Your task to perform on an android device: Search for Italian restaurants on Maps Image 0: 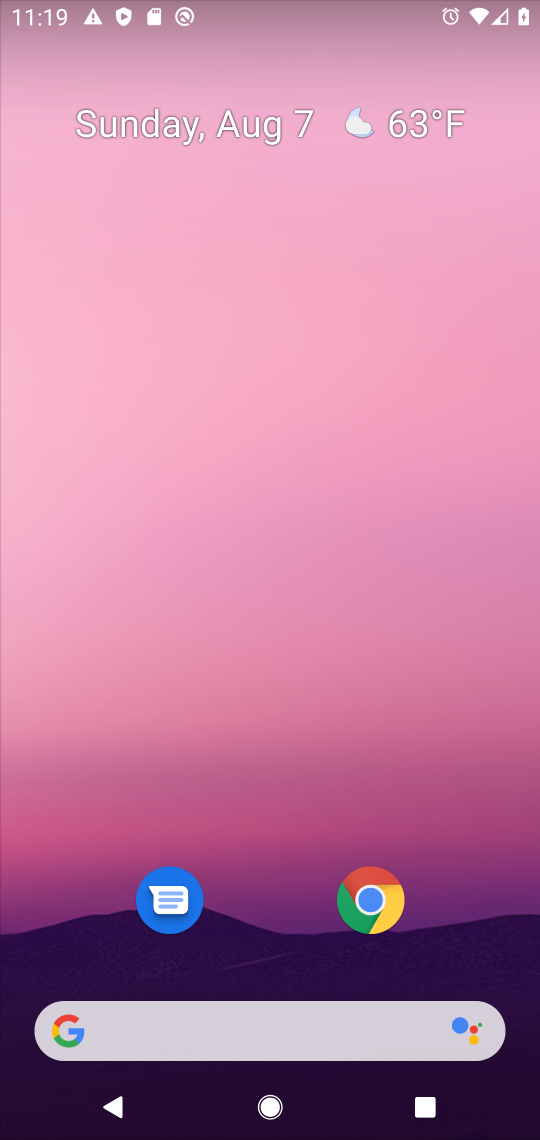
Step 0: press home button
Your task to perform on an android device: Search for Italian restaurants on Maps Image 1: 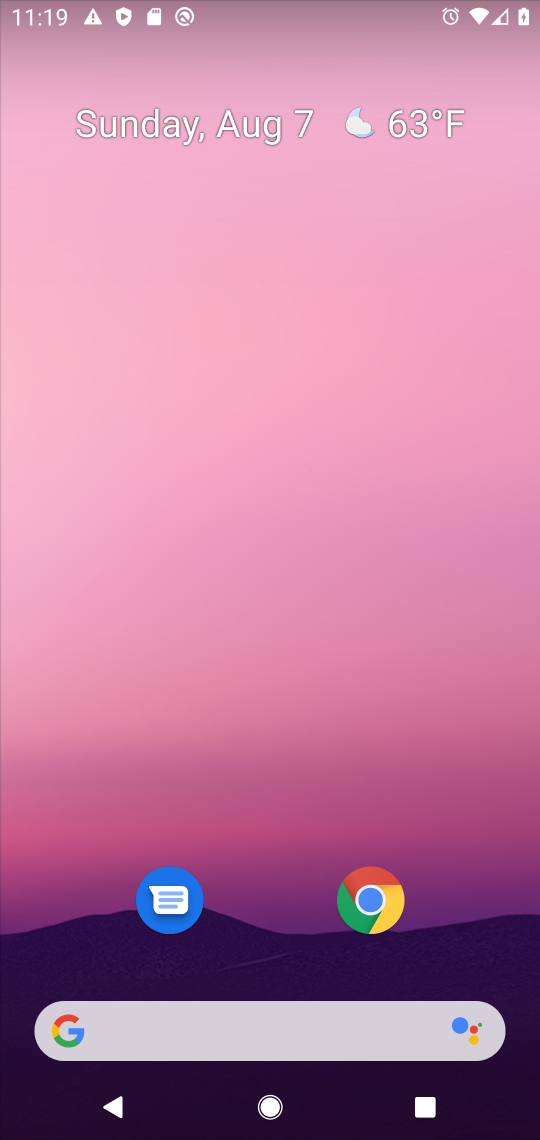
Step 1: drag from (276, 965) to (310, 123)
Your task to perform on an android device: Search for Italian restaurants on Maps Image 2: 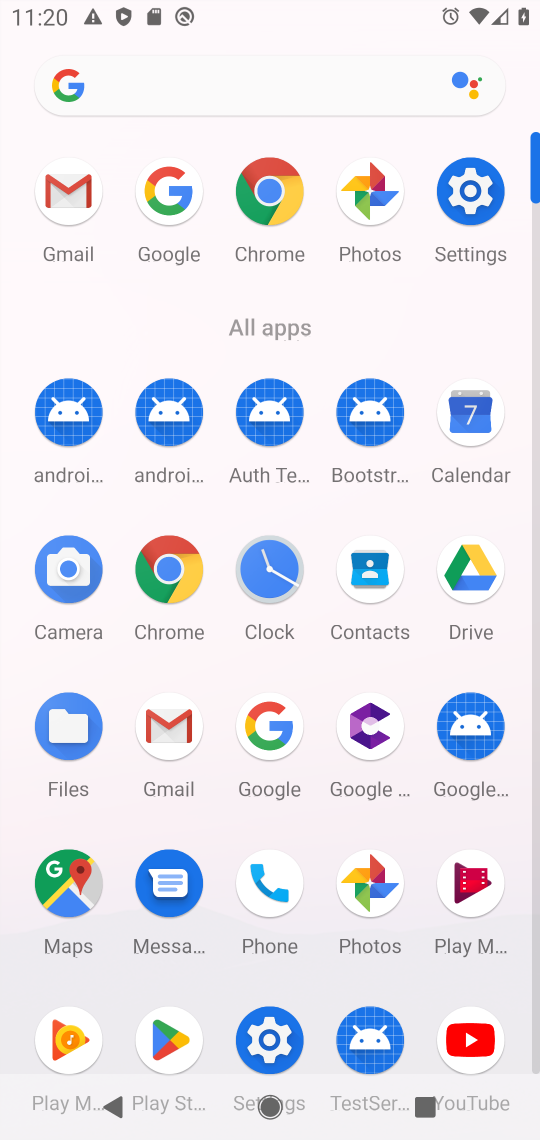
Step 2: click (73, 880)
Your task to perform on an android device: Search for Italian restaurants on Maps Image 3: 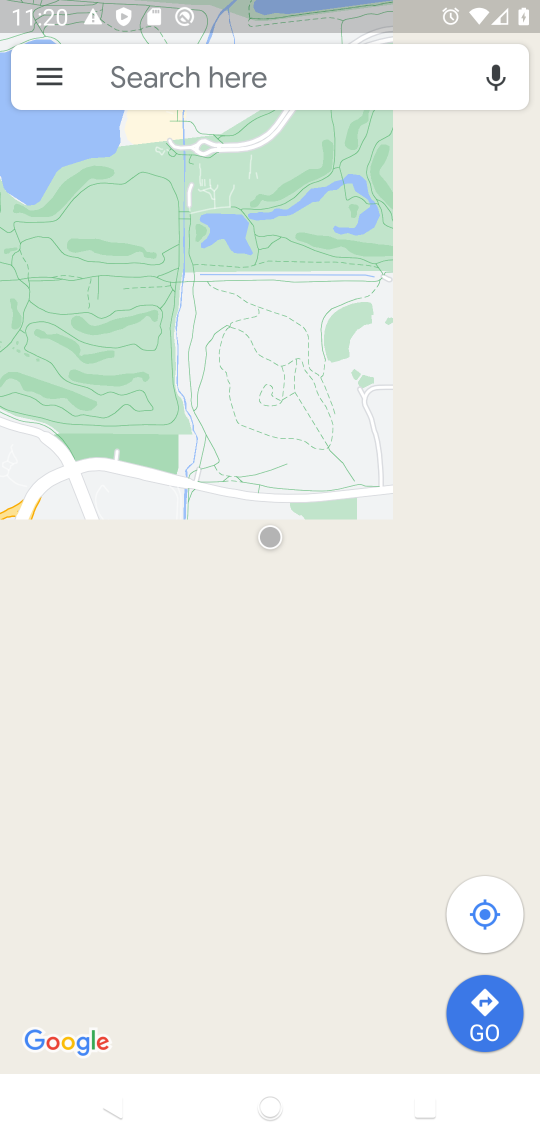
Step 3: click (132, 76)
Your task to perform on an android device: Search for Italian restaurants on Maps Image 4: 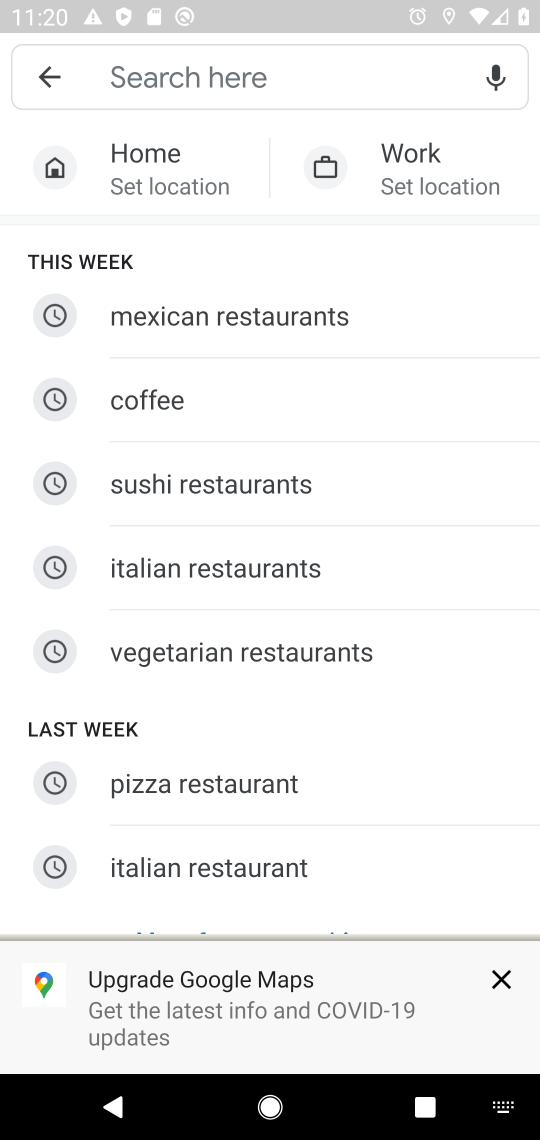
Step 4: click (222, 568)
Your task to perform on an android device: Search for Italian restaurants on Maps Image 5: 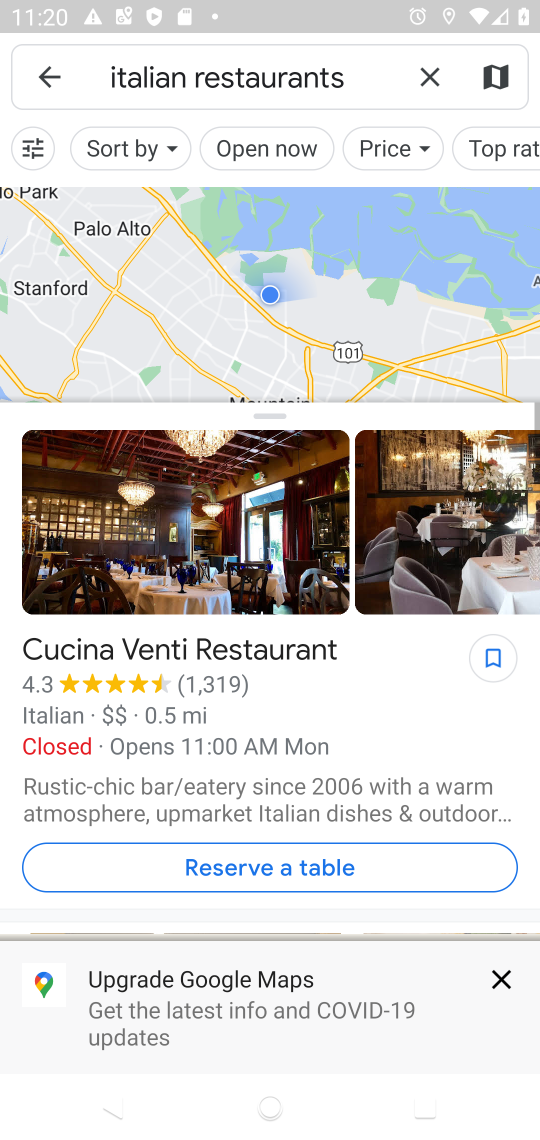
Step 5: drag from (269, 821) to (299, 299)
Your task to perform on an android device: Search for Italian restaurants on Maps Image 6: 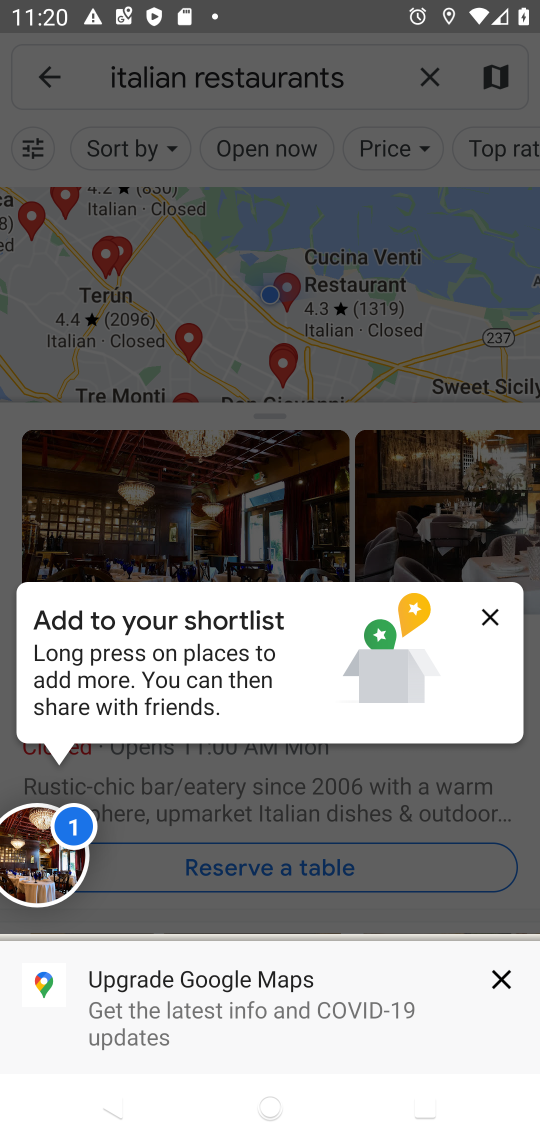
Step 6: click (483, 611)
Your task to perform on an android device: Search for Italian restaurants on Maps Image 7: 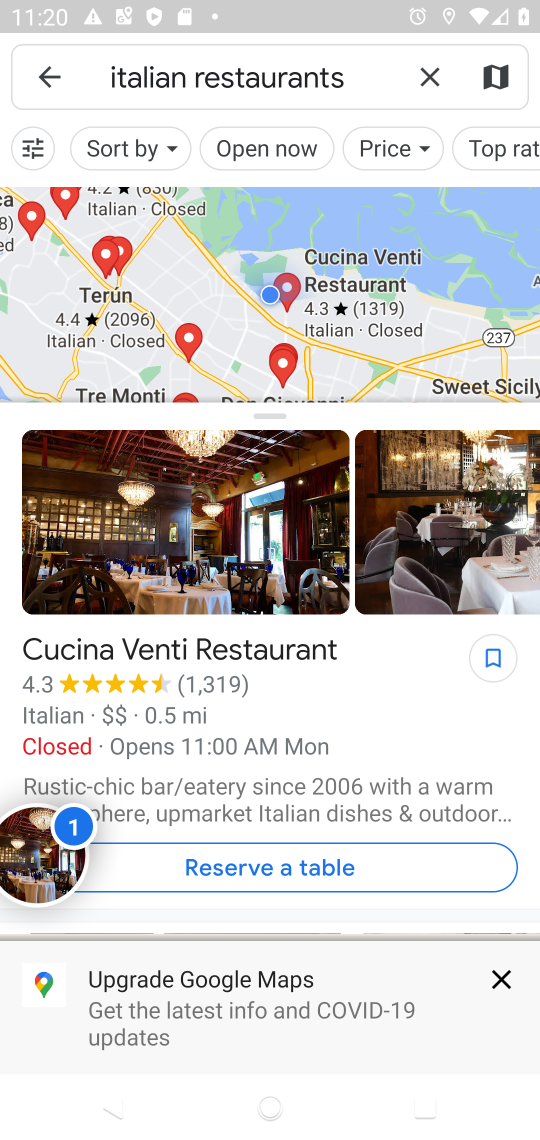
Step 7: task complete